Your task to perform on an android device: Open the phone app and click the voicemail tab. Image 0: 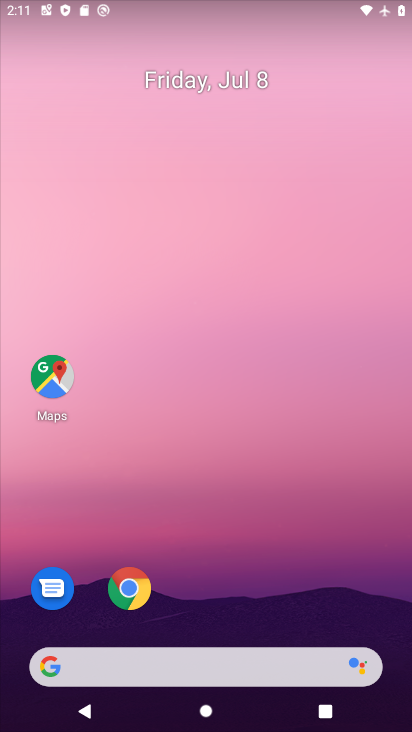
Step 0: drag from (223, 616) to (270, 4)
Your task to perform on an android device: Open the phone app and click the voicemail tab. Image 1: 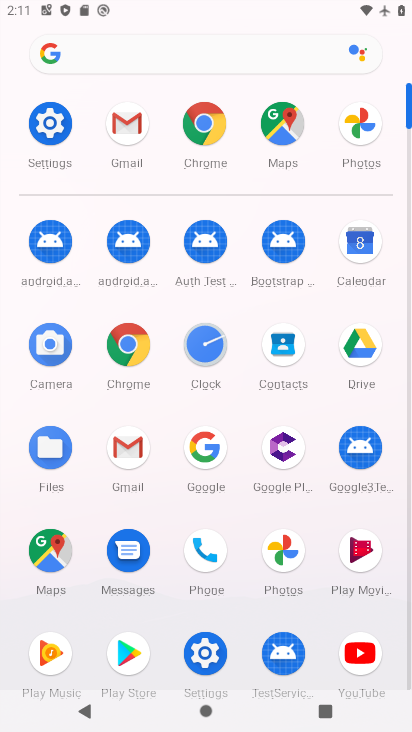
Step 1: click (201, 552)
Your task to perform on an android device: Open the phone app and click the voicemail tab. Image 2: 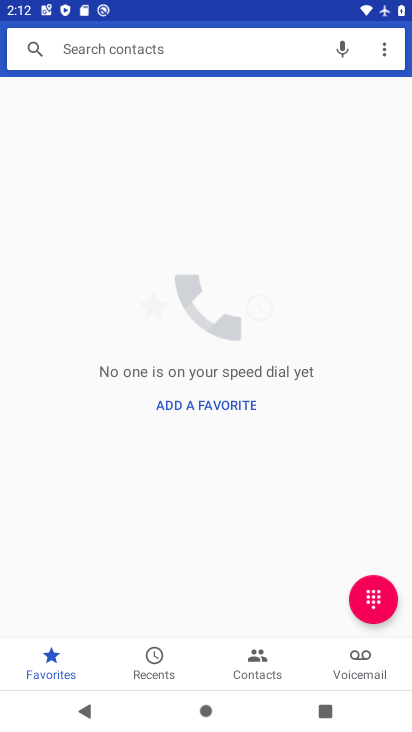
Step 2: click (365, 661)
Your task to perform on an android device: Open the phone app and click the voicemail tab. Image 3: 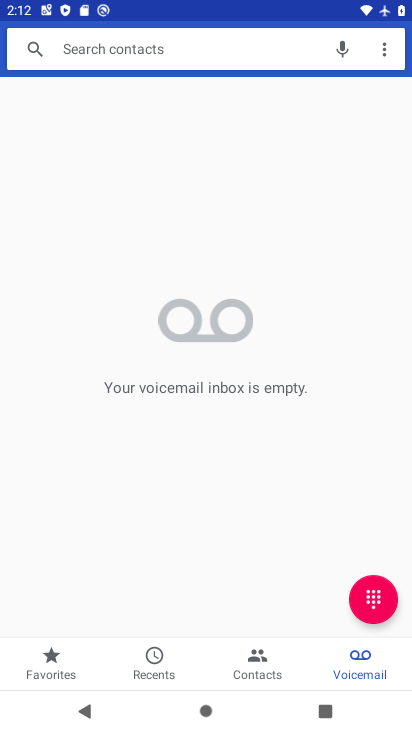
Step 3: task complete